Your task to perform on an android device: Set the phone to "Do not disturb". Image 0: 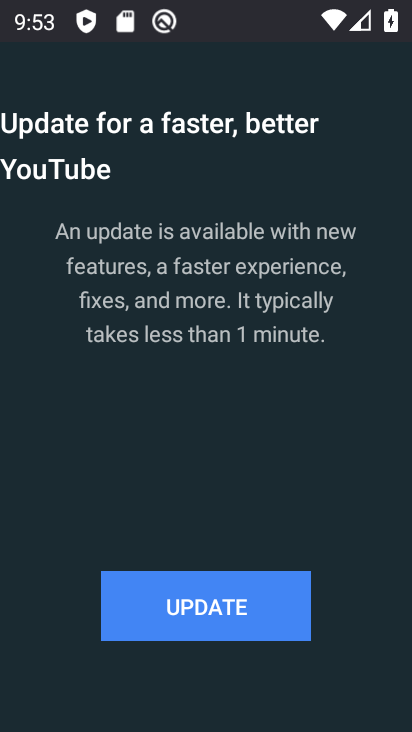
Step 0: press home button
Your task to perform on an android device: Set the phone to "Do not disturb". Image 1: 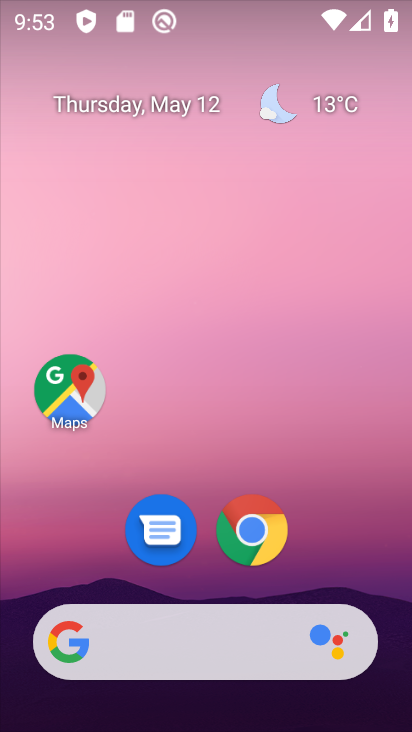
Step 1: drag from (337, 505) to (317, 7)
Your task to perform on an android device: Set the phone to "Do not disturb". Image 2: 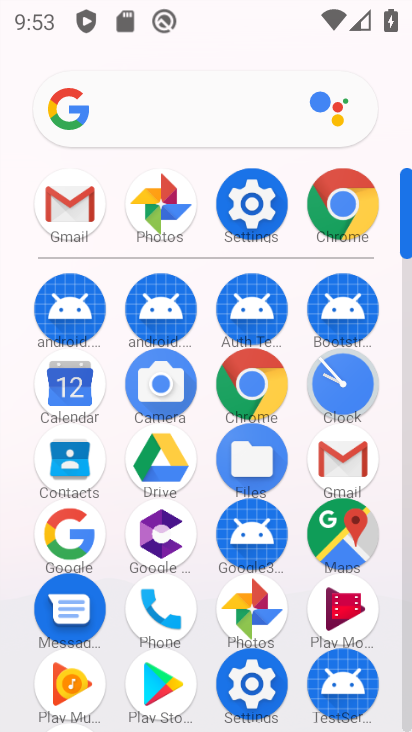
Step 2: click (229, 194)
Your task to perform on an android device: Set the phone to "Do not disturb". Image 3: 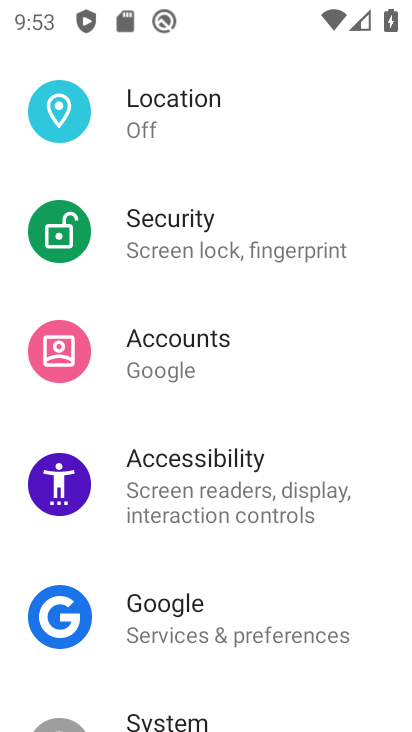
Step 3: drag from (270, 140) to (248, 543)
Your task to perform on an android device: Set the phone to "Do not disturb". Image 4: 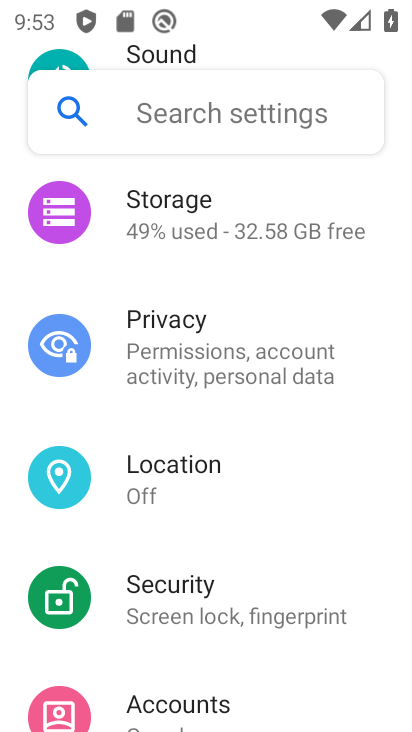
Step 4: drag from (318, 265) to (222, 612)
Your task to perform on an android device: Set the phone to "Do not disturb". Image 5: 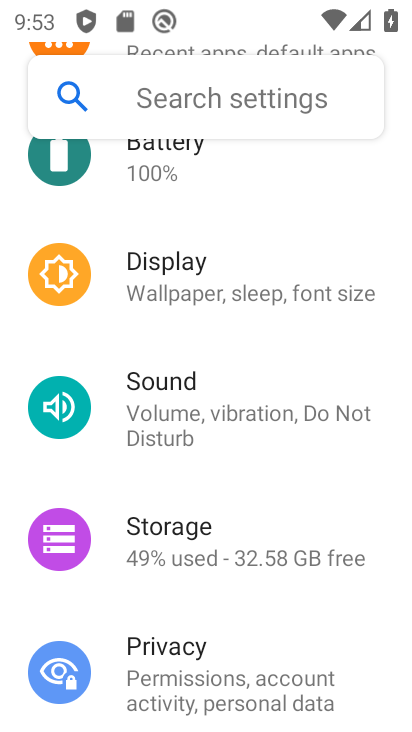
Step 5: click (267, 281)
Your task to perform on an android device: Set the phone to "Do not disturb". Image 6: 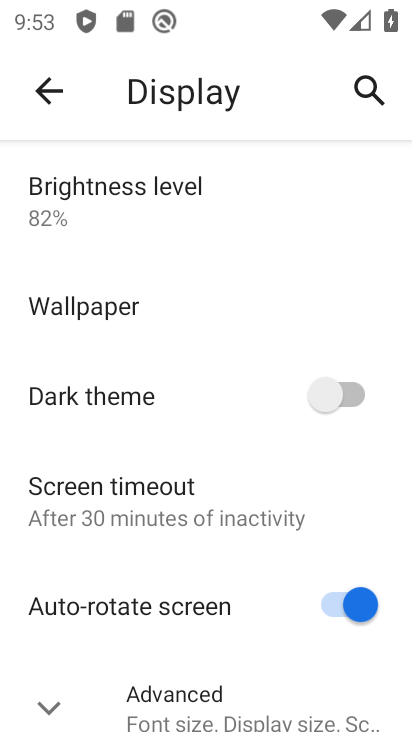
Step 6: press back button
Your task to perform on an android device: Set the phone to "Do not disturb". Image 7: 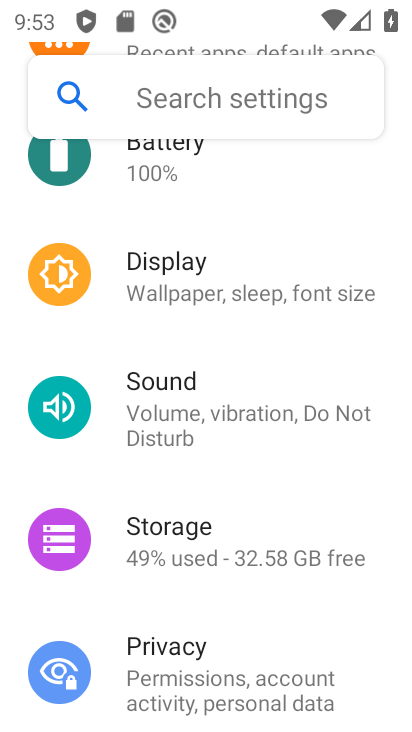
Step 7: click (224, 408)
Your task to perform on an android device: Set the phone to "Do not disturb". Image 8: 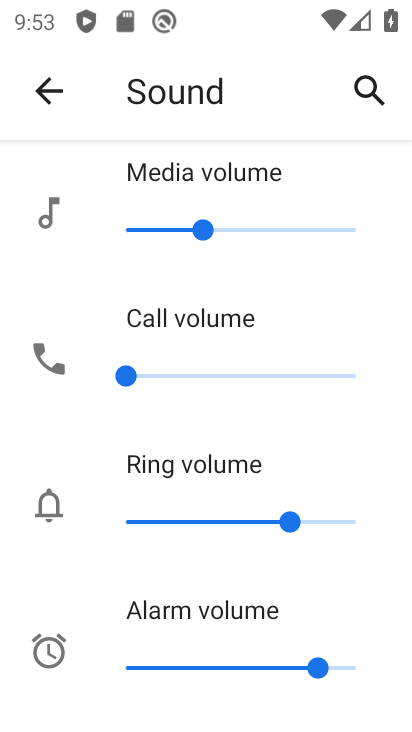
Step 8: drag from (326, 447) to (350, 84)
Your task to perform on an android device: Set the phone to "Do not disturb". Image 9: 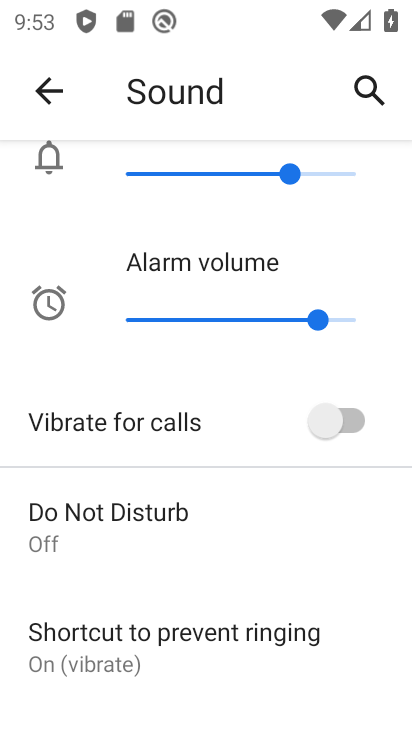
Step 9: click (177, 535)
Your task to perform on an android device: Set the phone to "Do not disturb". Image 10: 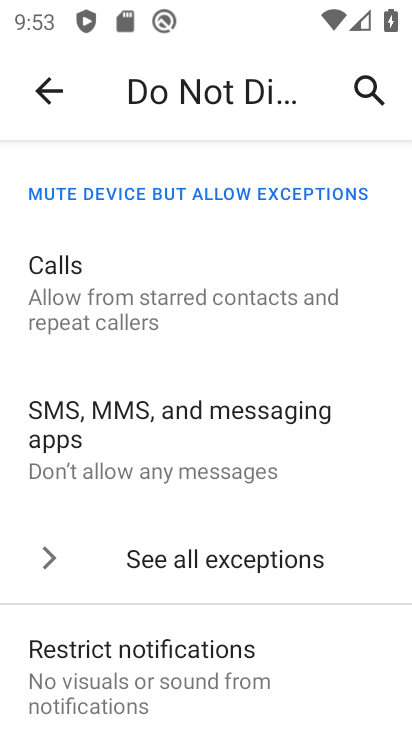
Step 10: drag from (279, 542) to (296, 101)
Your task to perform on an android device: Set the phone to "Do not disturb". Image 11: 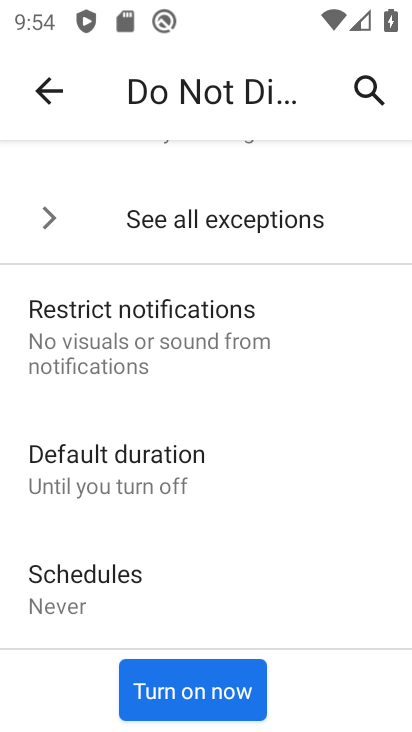
Step 11: click (143, 692)
Your task to perform on an android device: Set the phone to "Do not disturb". Image 12: 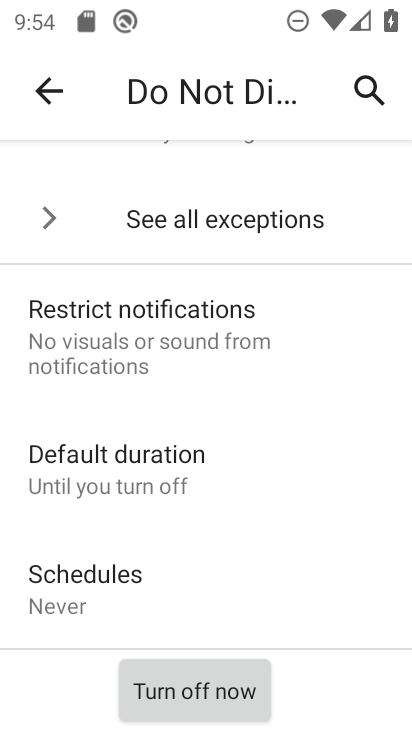
Step 12: task complete